Your task to perform on an android device: move an email to a new category in the gmail app Image 0: 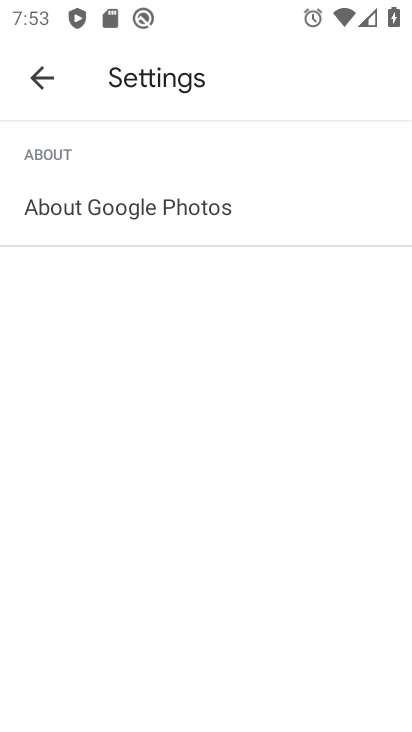
Step 0: press home button
Your task to perform on an android device: move an email to a new category in the gmail app Image 1: 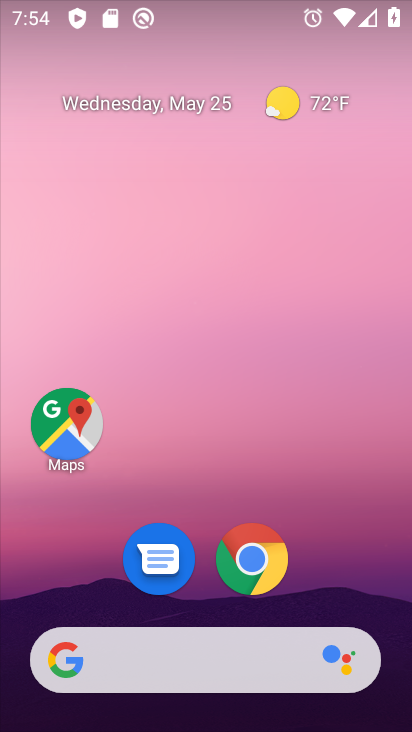
Step 1: drag from (211, 628) to (317, 61)
Your task to perform on an android device: move an email to a new category in the gmail app Image 2: 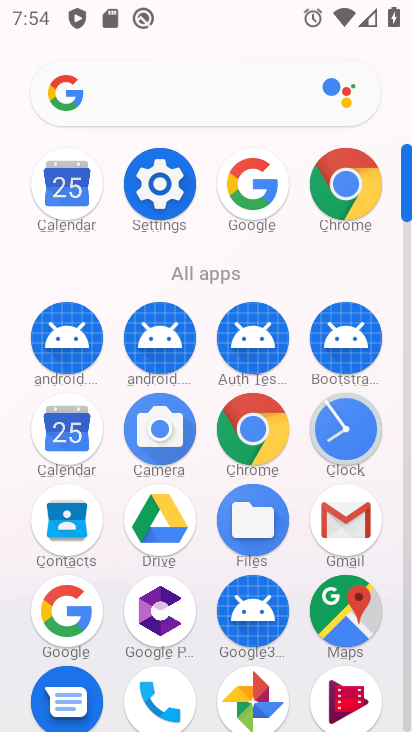
Step 2: click (354, 521)
Your task to perform on an android device: move an email to a new category in the gmail app Image 3: 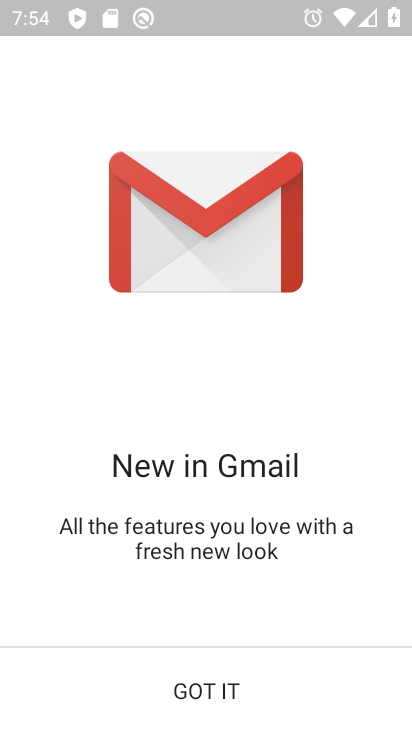
Step 3: click (283, 681)
Your task to perform on an android device: move an email to a new category in the gmail app Image 4: 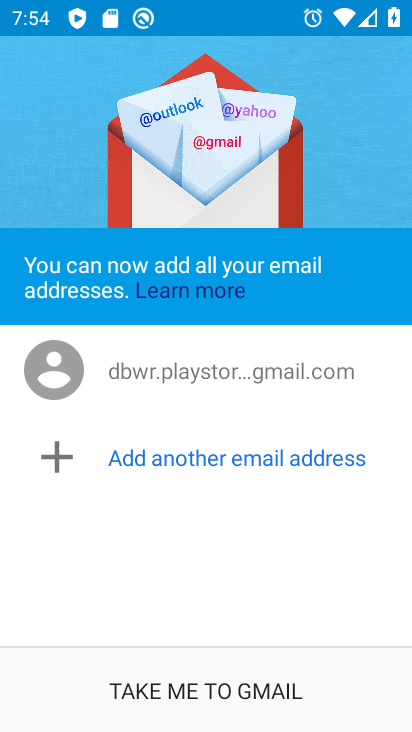
Step 4: click (282, 681)
Your task to perform on an android device: move an email to a new category in the gmail app Image 5: 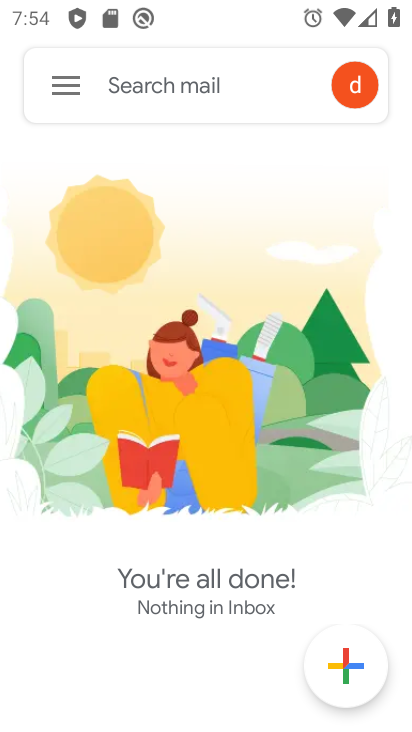
Step 5: click (67, 92)
Your task to perform on an android device: move an email to a new category in the gmail app Image 6: 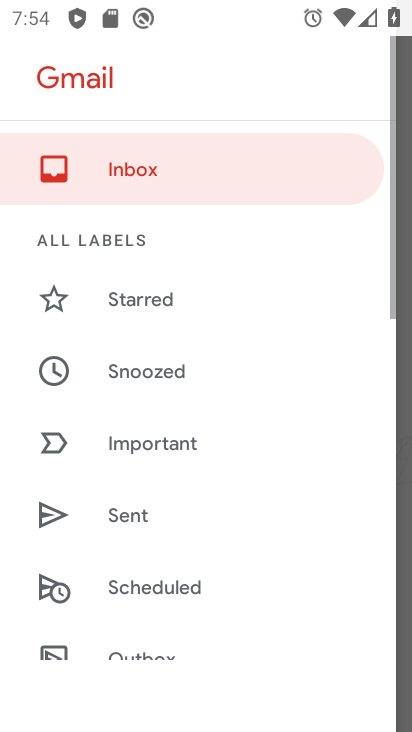
Step 6: drag from (168, 597) to (220, 241)
Your task to perform on an android device: move an email to a new category in the gmail app Image 7: 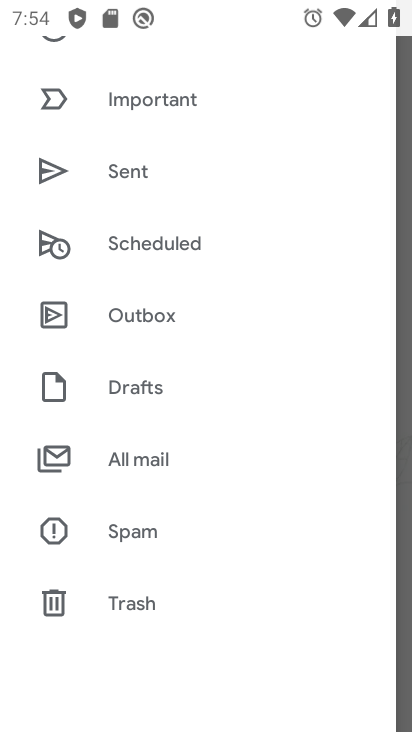
Step 7: click (174, 465)
Your task to perform on an android device: move an email to a new category in the gmail app Image 8: 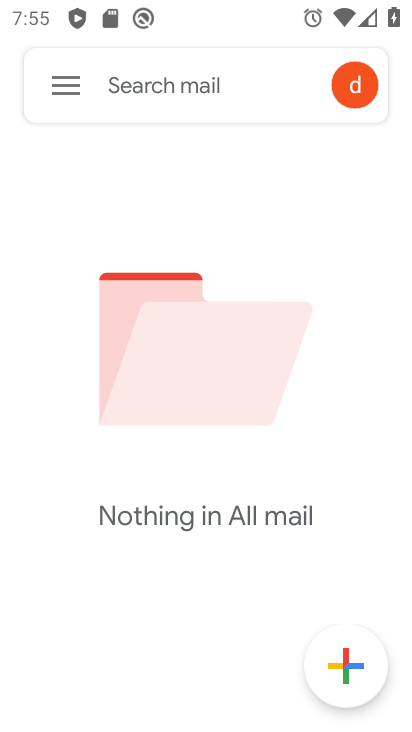
Step 8: task complete